Your task to perform on an android device: turn off javascript in the chrome app Image 0: 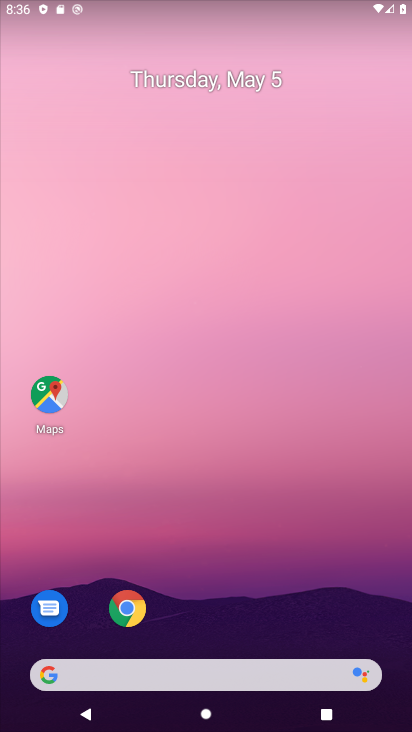
Step 0: drag from (282, 669) to (292, 70)
Your task to perform on an android device: turn off javascript in the chrome app Image 1: 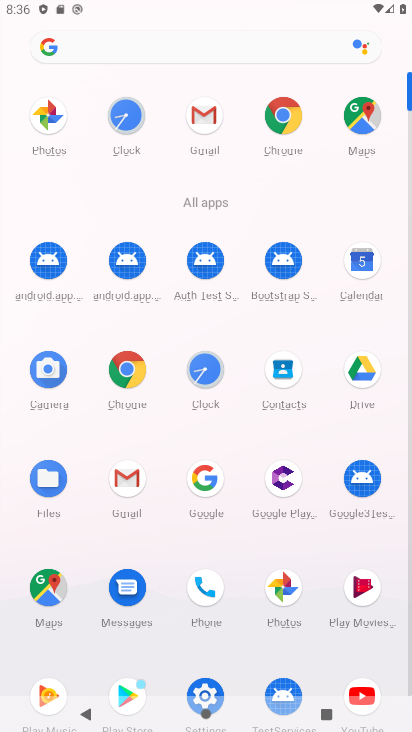
Step 1: click (123, 371)
Your task to perform on an android device: turn off javascript in the chrome app Image 2: 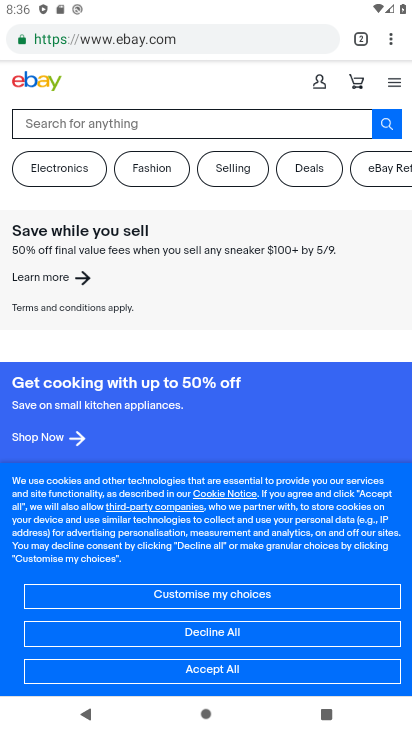
Step 2: drag from (385, 38) to (276, 478)
Your task to perform on an android device: turn off javascript in the chrome app Image 3: 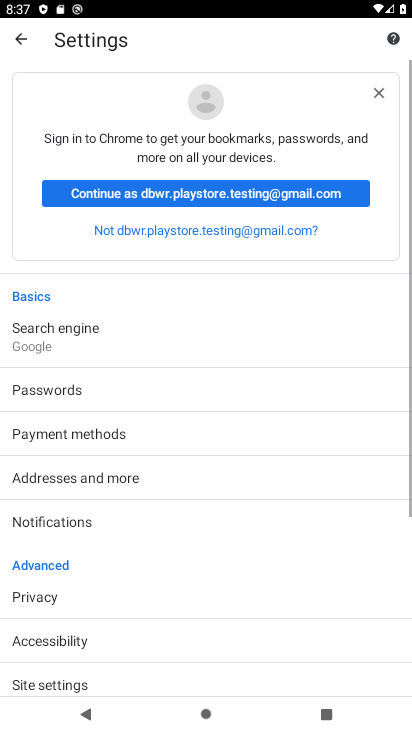
Step 3: drag from (179, 647) to (125, 167)
Your task to perform on an android device: turn off javascript in the chrome app Image 4: 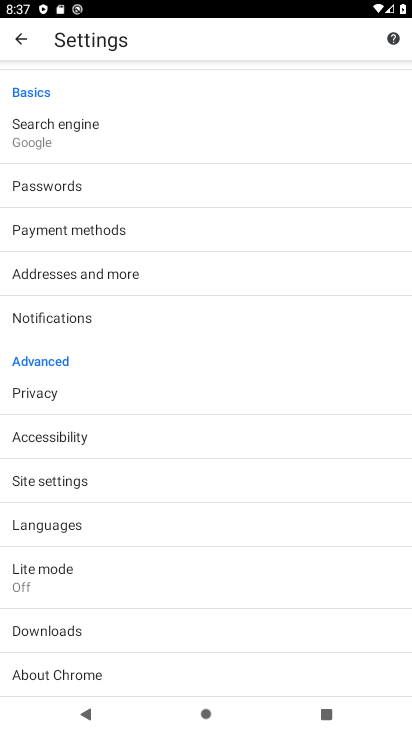
Step 4: click (20, 473)
Your task to perform on an android device: turn off javascript in the chrome app Image 5: 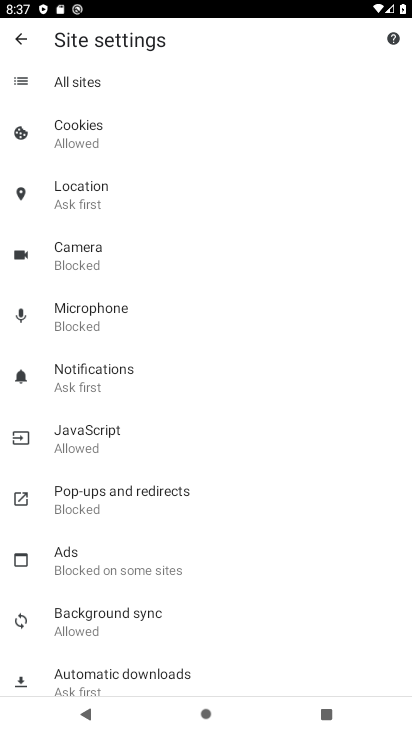
Step 5: click (103, 439)
Your task to perform on an android device: turn off javascript in the chrome app Image 6: 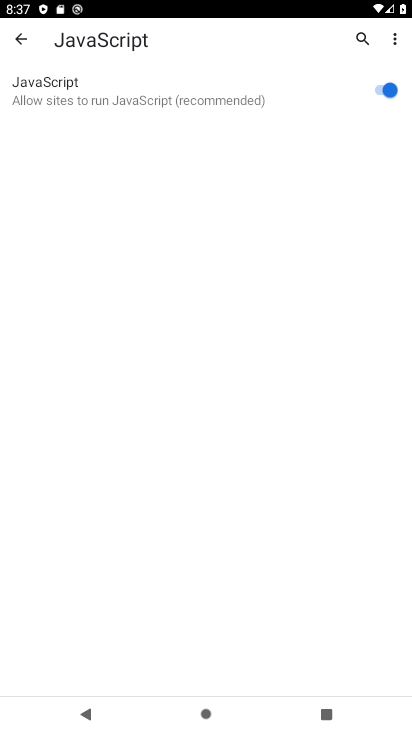
Step 6: click (387, 88)
Your task to perform on an android device: turn off javascript in the chrome app Image 7: 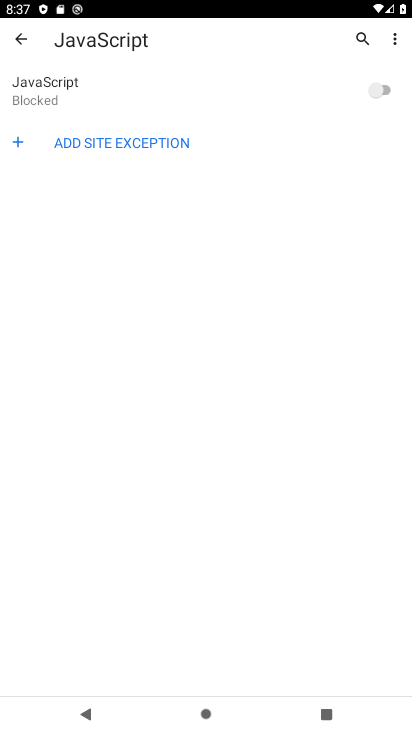
Step 7: task complete